Your task to perform on an android device: Open internet settings Image 0: 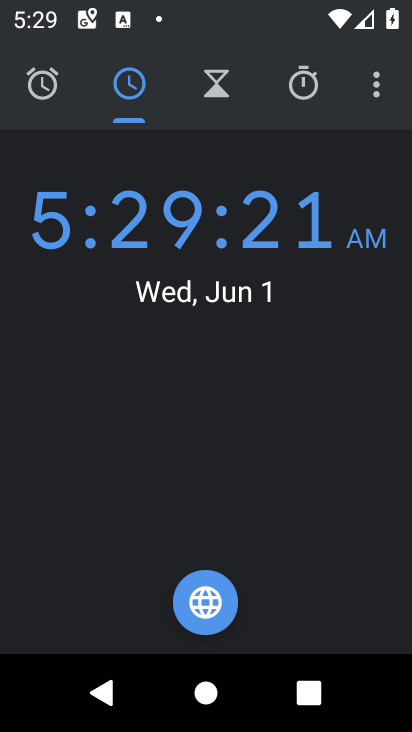
Step 0: press home button
Your task to perform on an android device: Open internet settings Image 1: 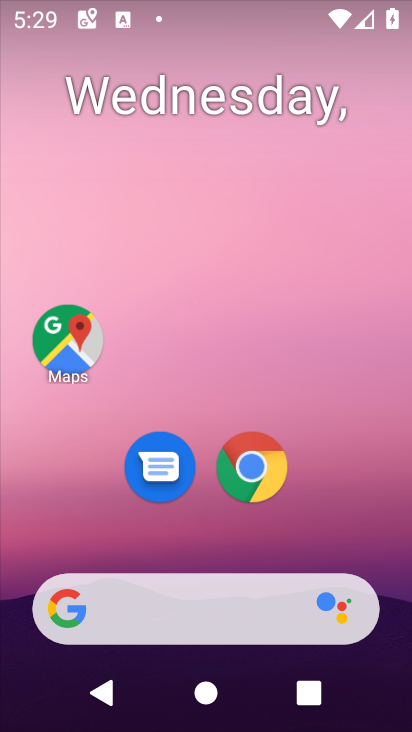
Step 1: drag from (347, 527) to (176, 41)
Your task to perform on an android device: Open internet settings Image 2: 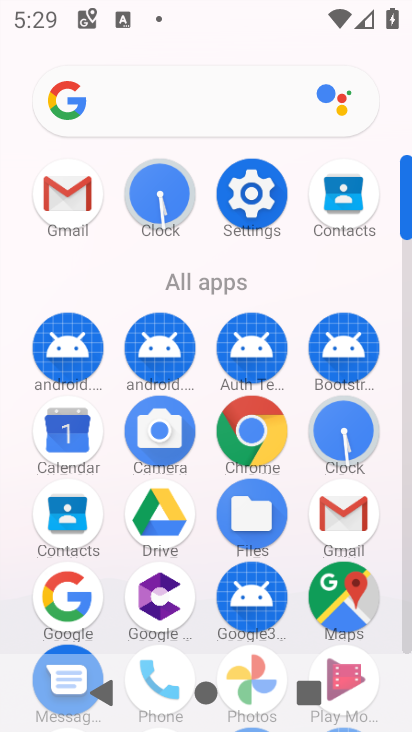
Step 2: click (238, 218)
Your task to perform on an android device: Open internet settings Image 3: 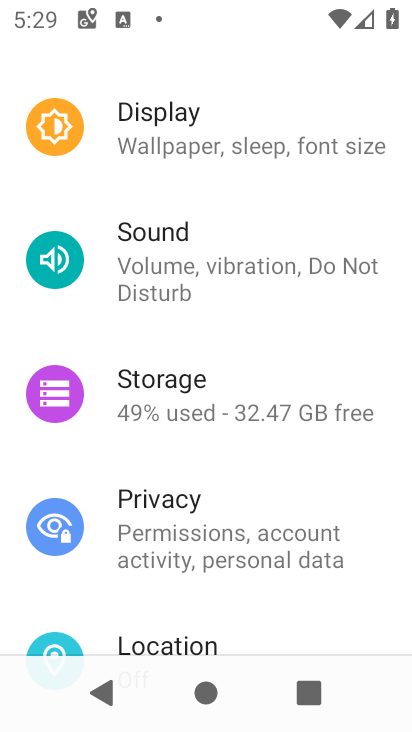
Step 3: drag from (259, 218) to (322, 671)
Your task to perform on an android device: Open internet settings Image 4: 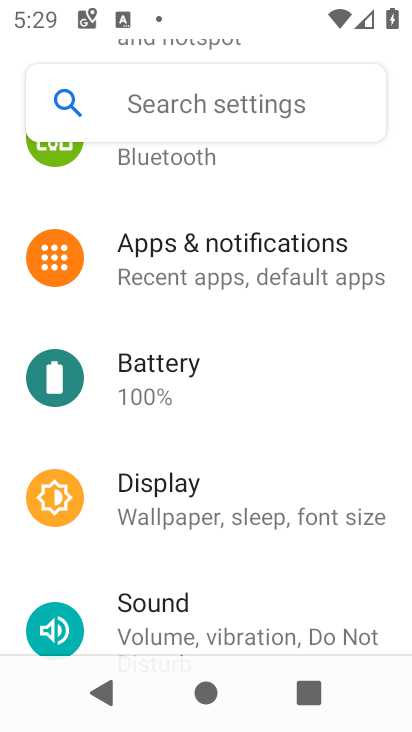
Step 4: drag from (270, 194) to (281, 557)
Your task to perform on an android device: Open internet settings Image 5: 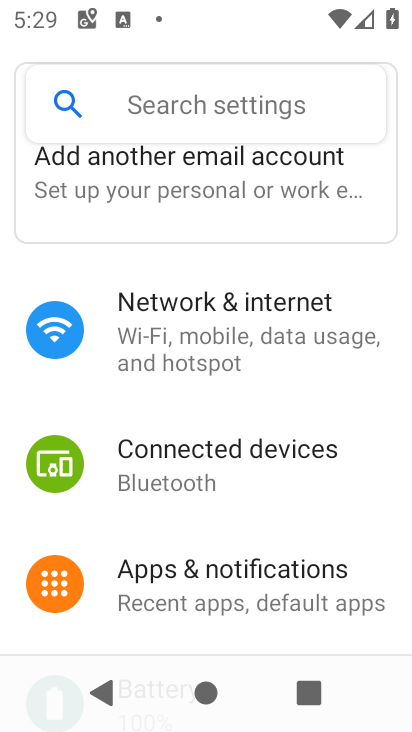
Step 5: click (218, 321)
Your task to perform on an android device: Open internet settings Image 6: 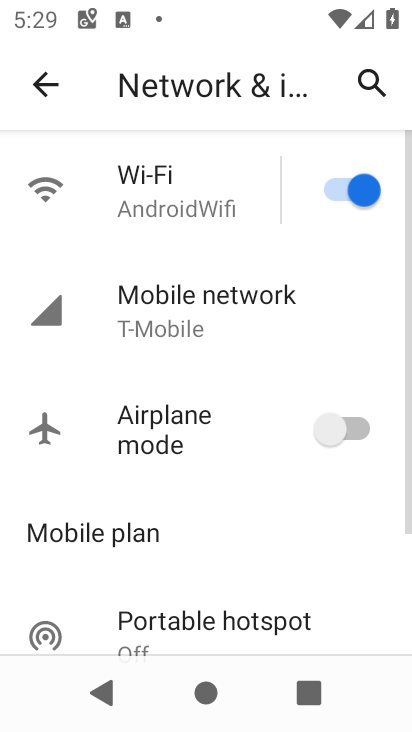
Step 6: task complete